Your task to perform on an android device: Open Yahoo.com Image 0: 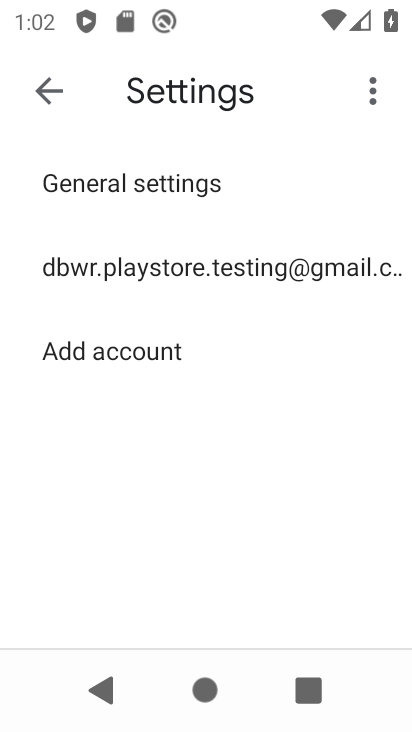
Step 0: press home button
Your task to perform on an android device: Open Yahoo.com Image 1: 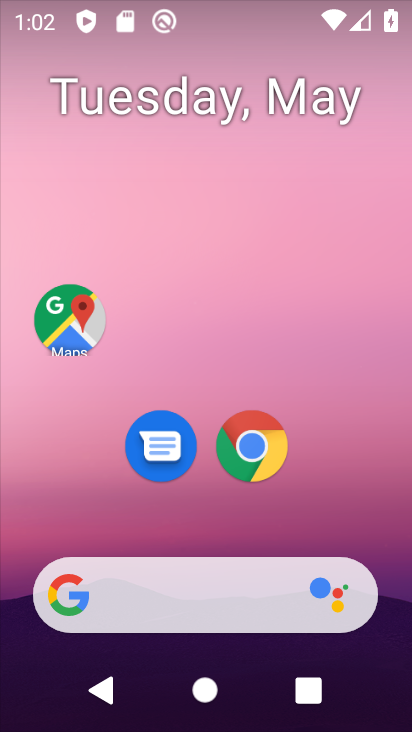
Step 1: click (232, 470)
Your task to perform on an android device: Open Yahoo.com Image 2: 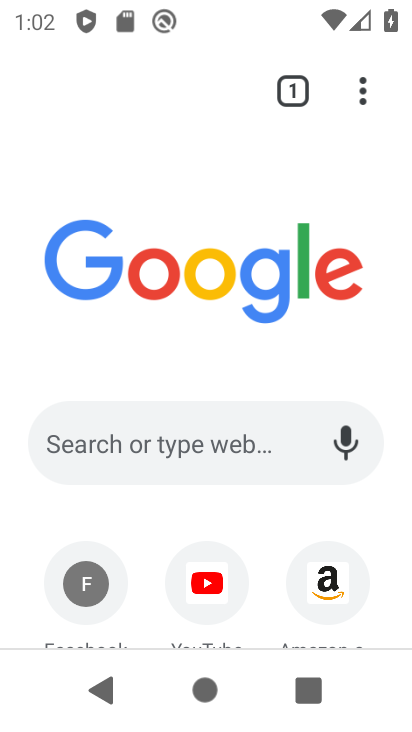
Step 2: drag from (228, 607) to (183, 190)
Your task to perform on an android device: Open Yahoo.com Image 3: 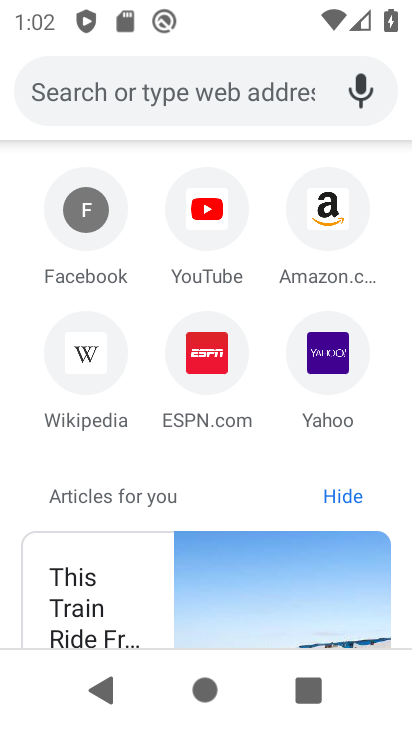
Step 3: click (330, 377)
Your task to perform on an android device: Open Yahoo.com Image 4: 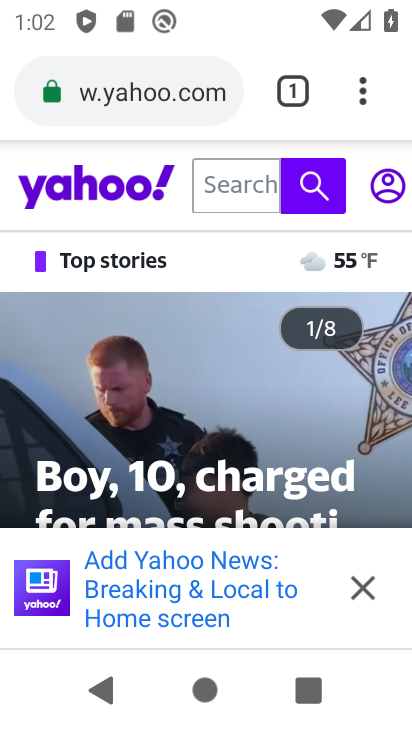
Step 4: task complete